Your task to perform on an android device: turn on location history Image 0: 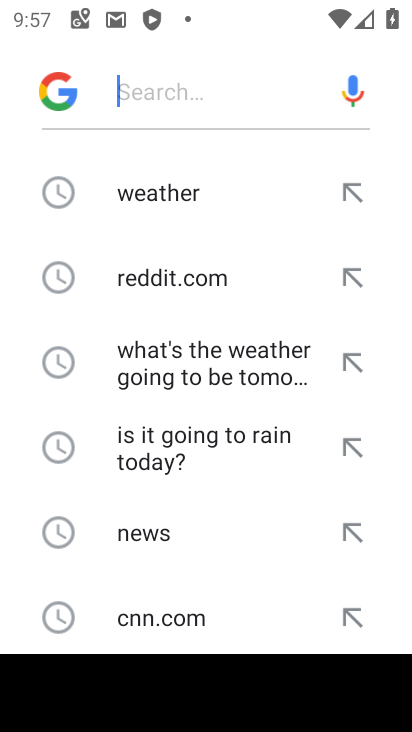
Step 0: press back button
Your task to perform on an android device: turn on location history Image 1: 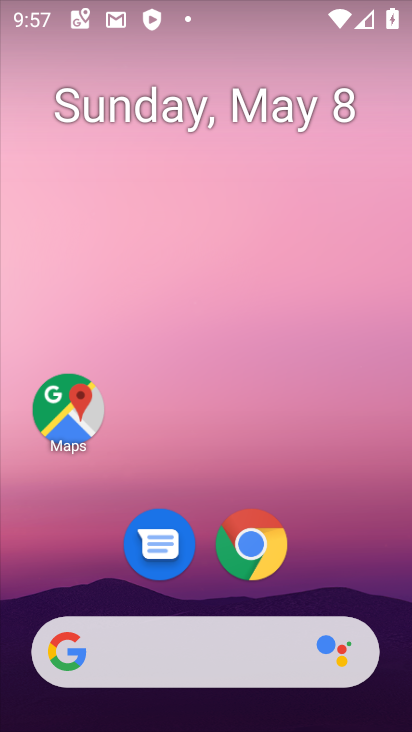
Step 1: drag from (320, 537) to (321, 121)
Your task to perform on an android device: turn on location history Image 2: 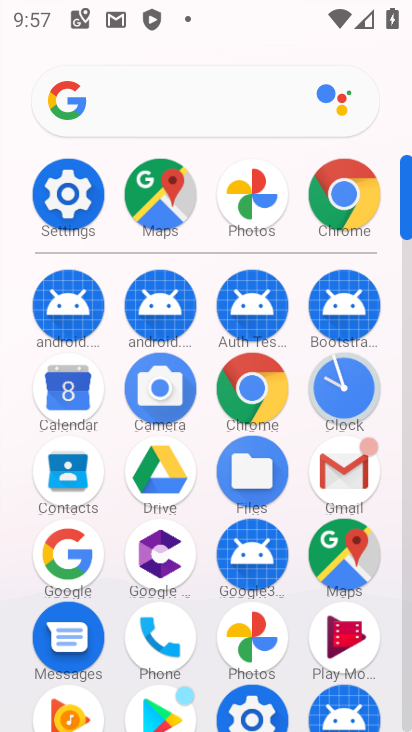
Step 2: click (239, 717)
Your task to perform on an android device: turn on location history Image 3: 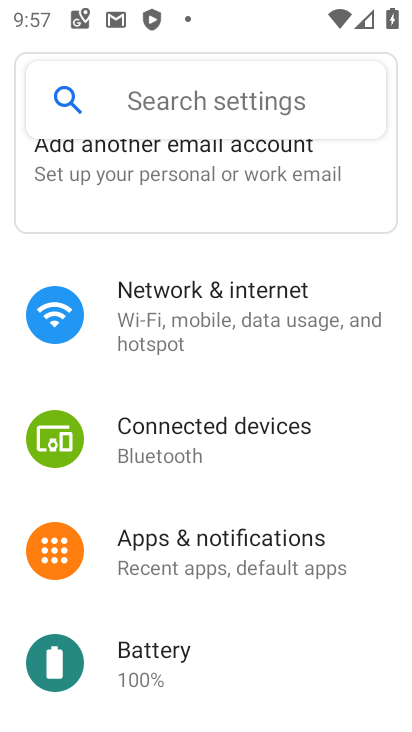
Step 3: click (255, 607)
Your task to perform on an android device: turn on location history Image 4: 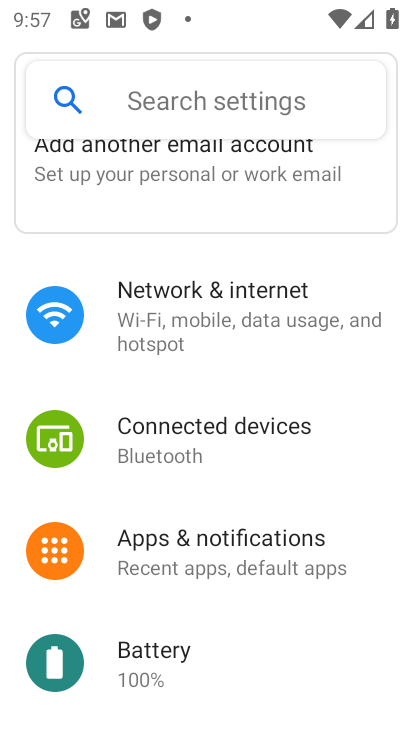
Step 4: drag from (255, 607) to (262, 214)
Your task to perform on an android device: turn on location history Image 5: 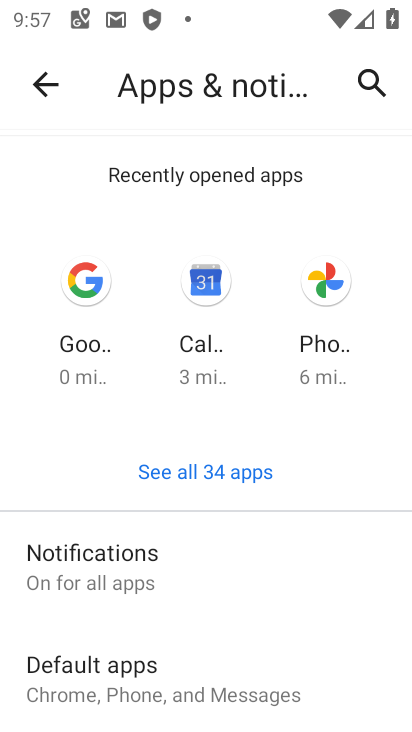
Step 5: click (45, 82)
Your task to perform on an android device: turn on location history Image 6: 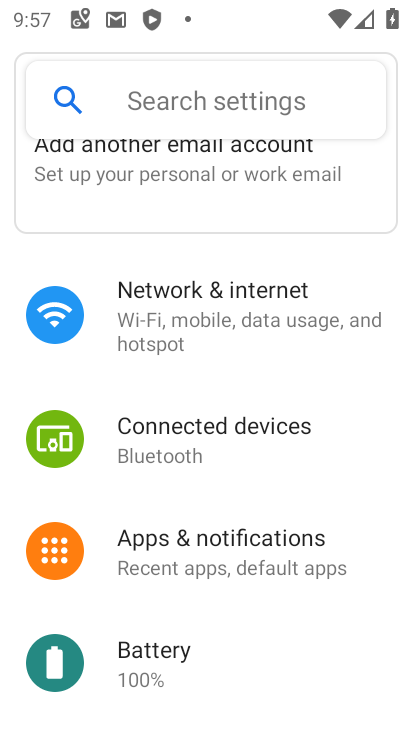
Step 6: drag from (197, 644) to (210, 297)
Your task to perform on an android device: turn on location history Image 7: 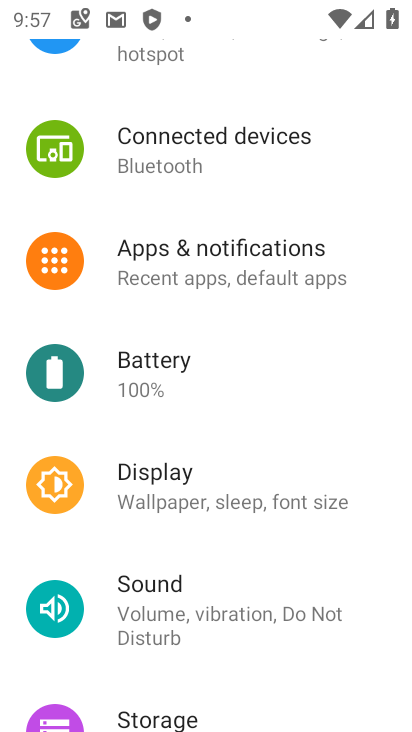
Step 7: drag from (218, 663) to (226, 366)
Your task to perform on an android device: turn on location history Image 8: 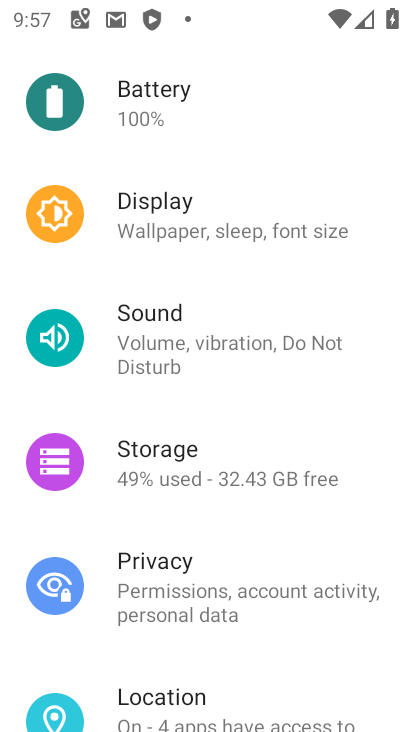
Step 8: drag from (240, 677) to (302, 286)
Your task to perform on an android device: turn on location history Image 9: 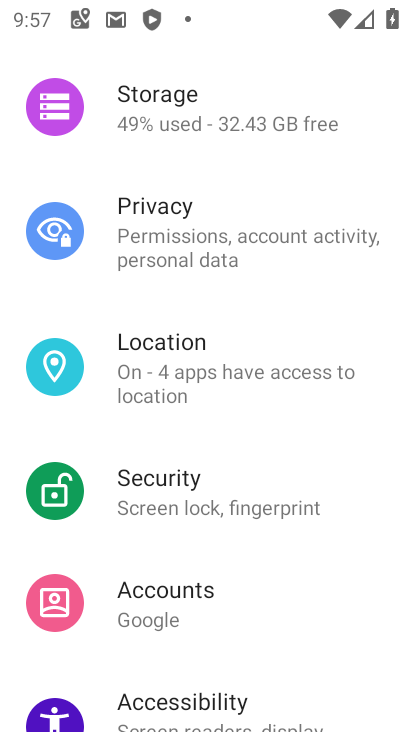
Step 9: click (286, 359)
Your task to perform on an android device: turn on location history Image 10: 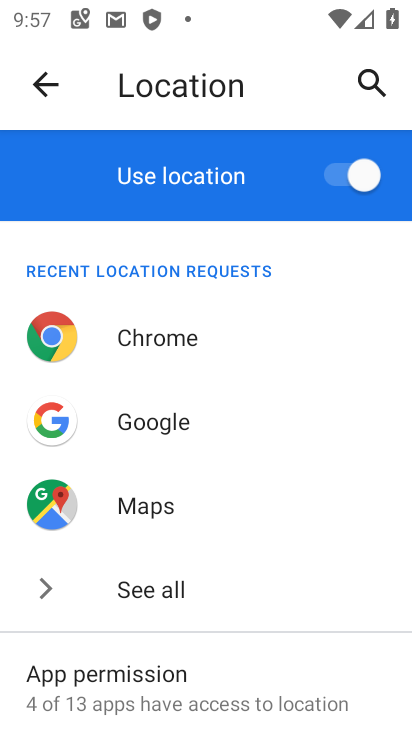
Step 10: task complete